Your task to perform on an android device: turn on translation in the chrome app Image 0: 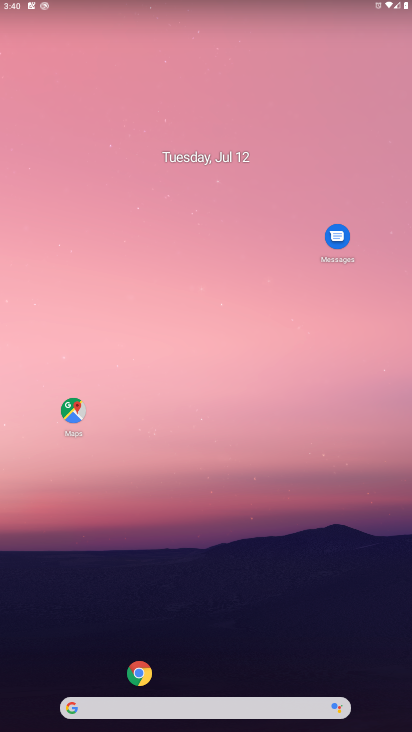
Step 0: click (133, 664)
Your task to perform on an android device: turn on translation in the chrome app Image 1: 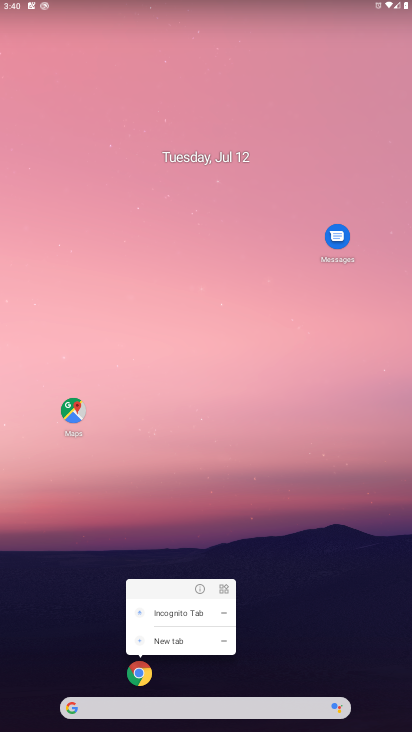
Step 1: click (137, 680)
Your task to perform on an android device: turn on translation in the chrome app Image 2: 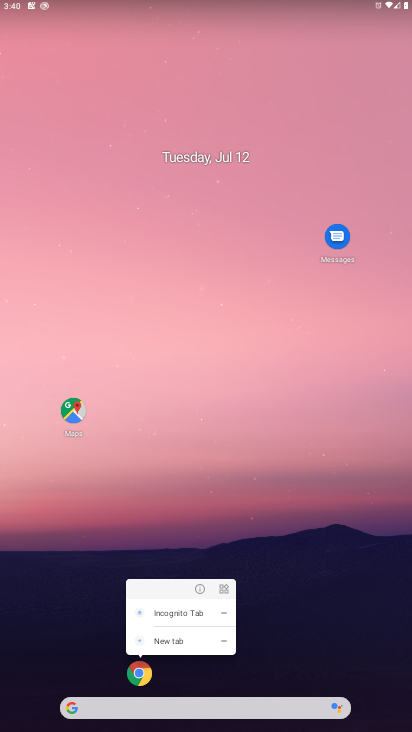
Step 2: task complete